Your task to perform on an android device: Open Wikipedia Image 0: 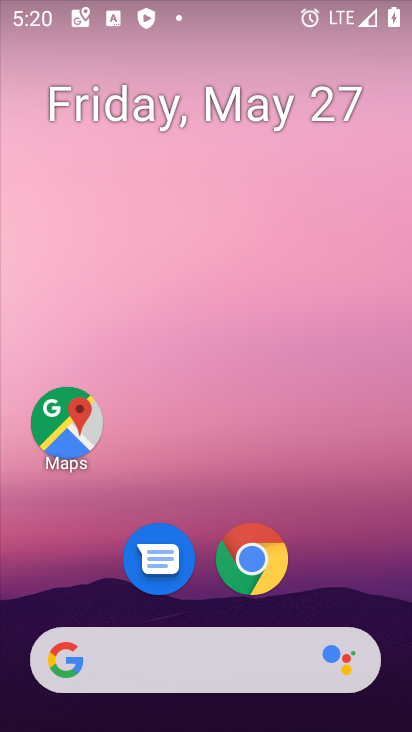
Step 0: drag from (208, 597) to (180, 118)
Your task to perform on an android device: Open Wikipedia Image 1: 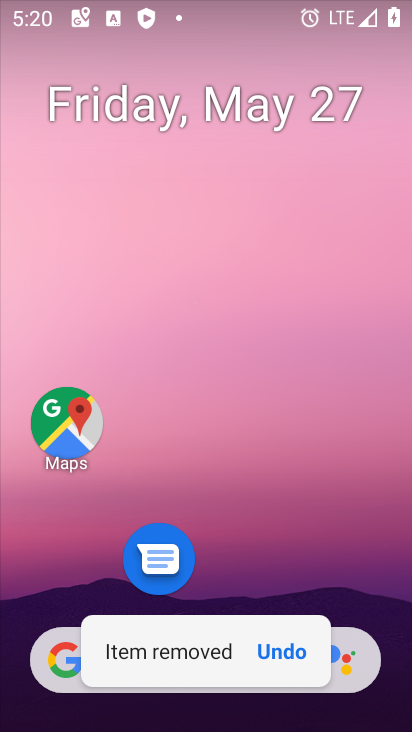
Step 1: click (387, 561)
Your task to perform on an android device: Open Wikipedia Image 2: 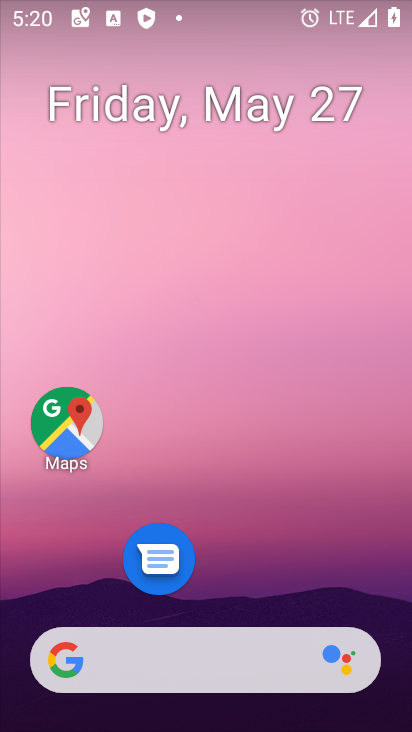
Step 2: drag from (354, 666) to (302, 109)
Your task to perform on an android device: Open Wikipedia Image 3: 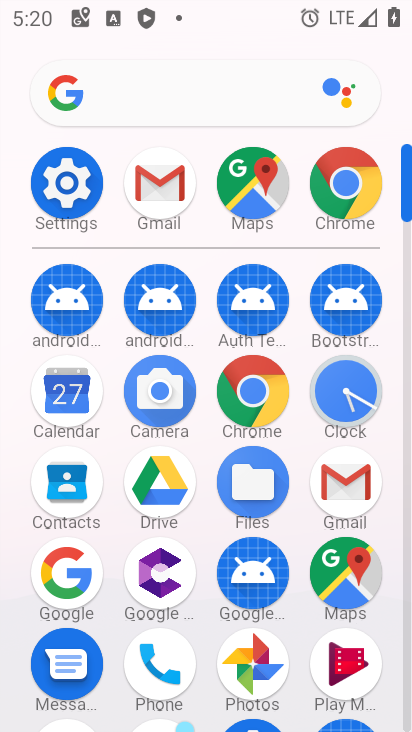
Step 3: click (258, 402)
Your task to perform on an android device: Open Wikipedia Image 4: 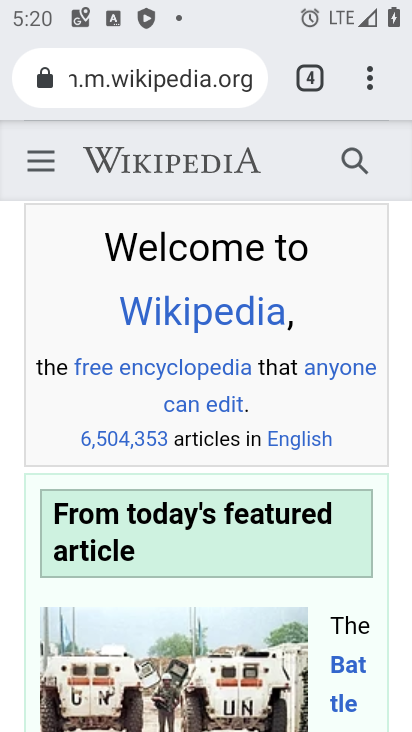
Step 4: task complete